Your task to perform on an android device: change alarm snooze length Image 0: 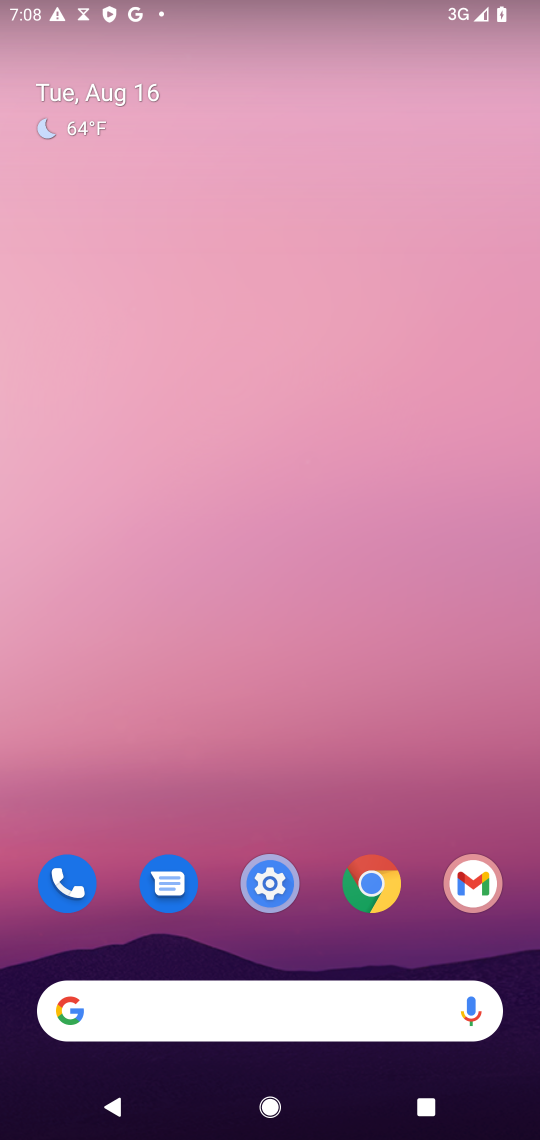
Step 0: drag from (252, 1034) to (354, 251)
Your task to perform on an android device: change alarm snooze length Image 1: 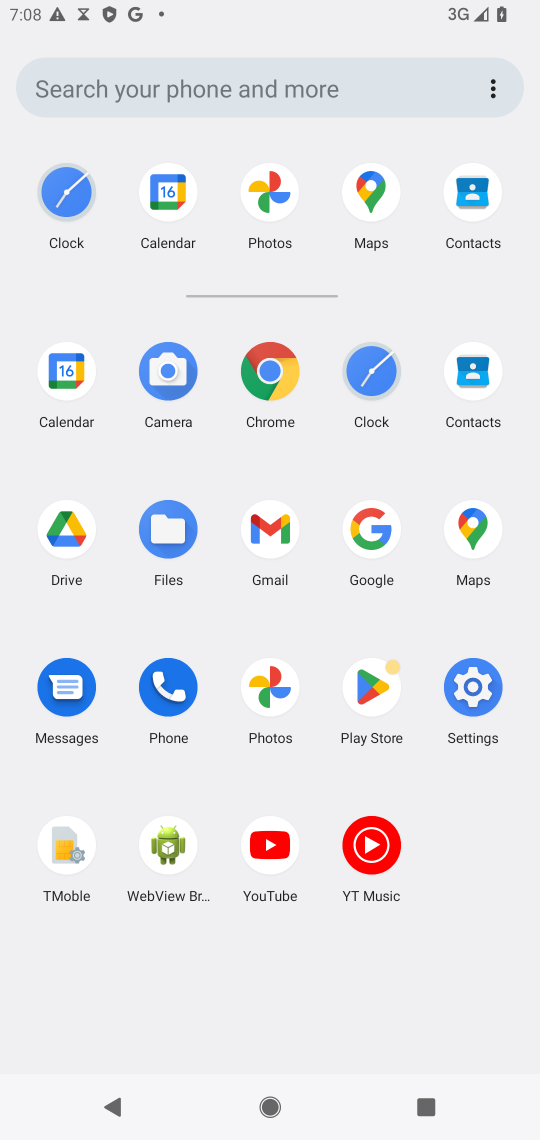
Step 1: click (372, 375)
Your task to perform on an android device: change alarm snooze length Image 2: 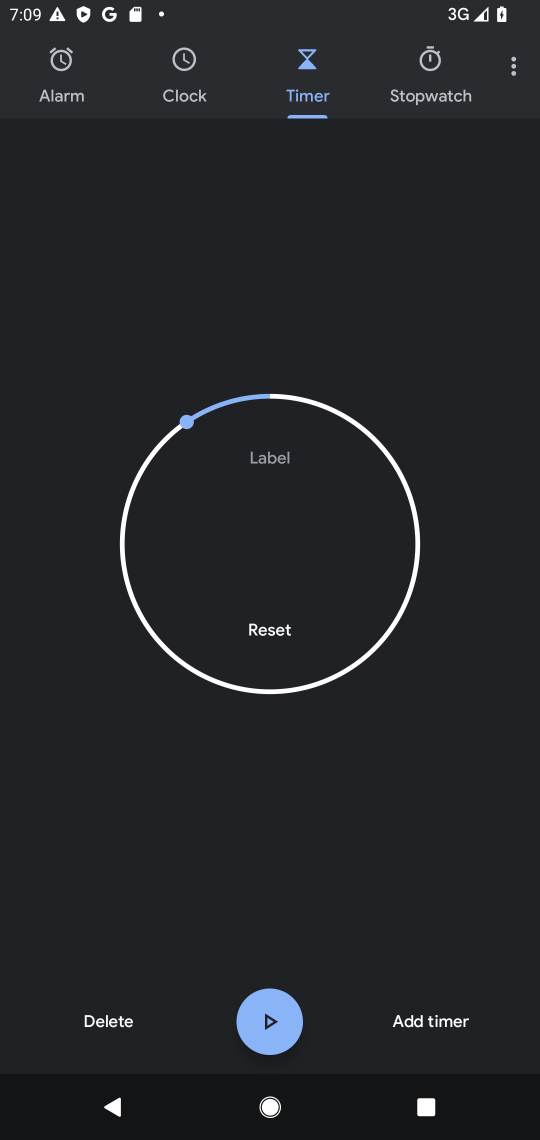
Step 2: click (518, 68)
Your task to perform on an android device: change alarm snooze length Image 3: 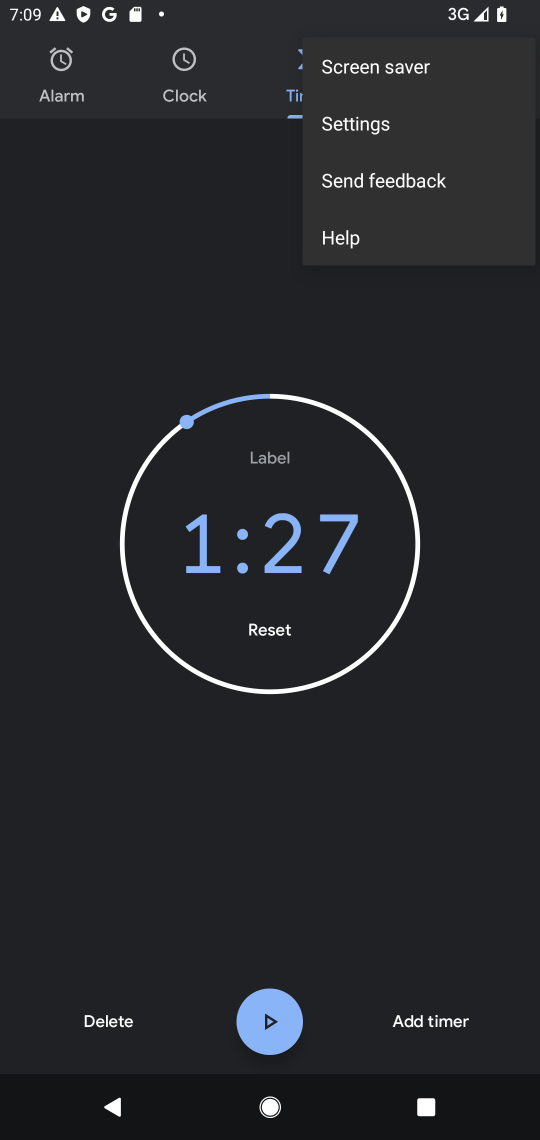
Step 3: click (385, 136)
Your task to perform on an android device: change alarm snooze length Image 4: 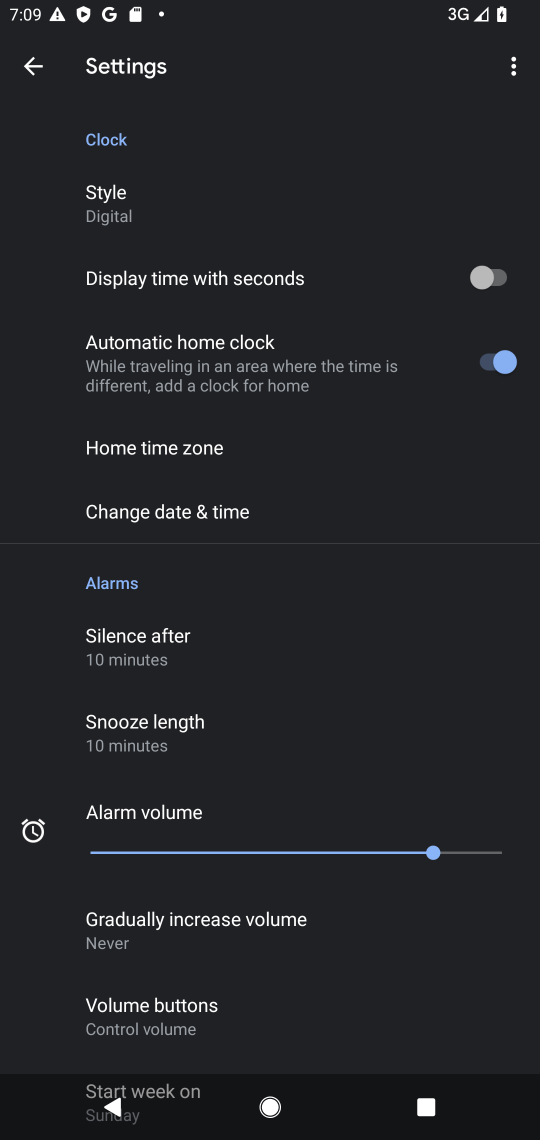
Step 4: click (194, 730)
Your task to perform on an android device: change alarm snooze length Image 5: 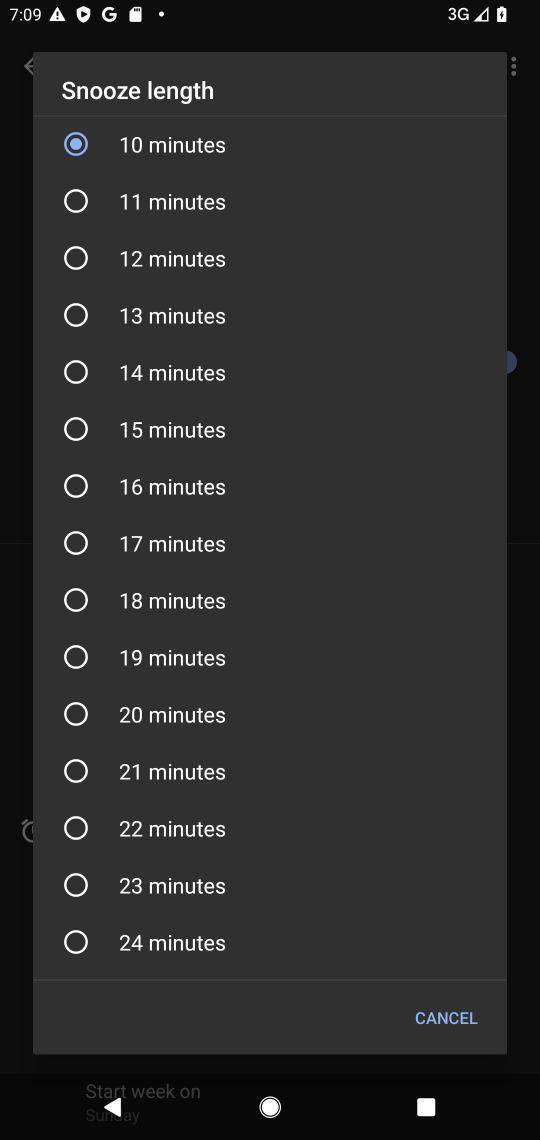
Step 5: click (81, 721)
Your task to perform on an android device: change alarm snooze length Image 6: 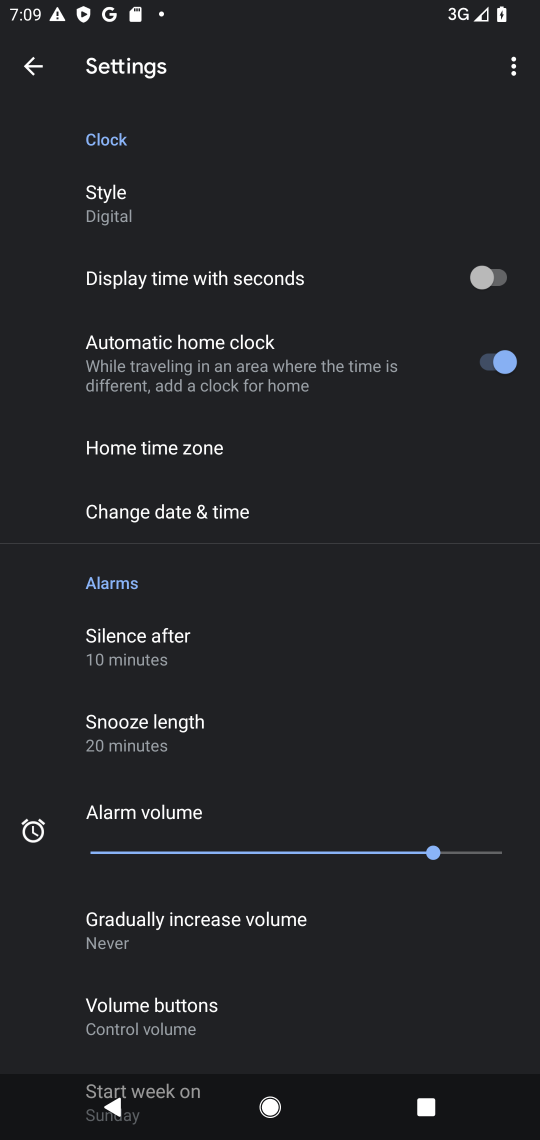
Step 6: task complete